Your task to perform on an android device: change the upload size in google photos Image 0: 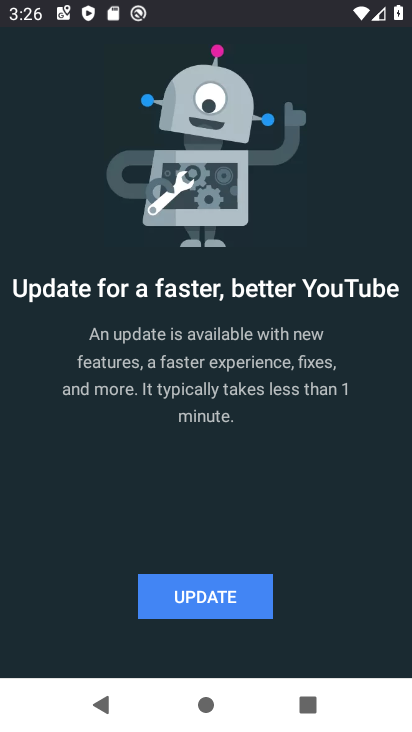
Step 0: press home button
Your task to perform on an android device: change the upload size in google photos Image 1: 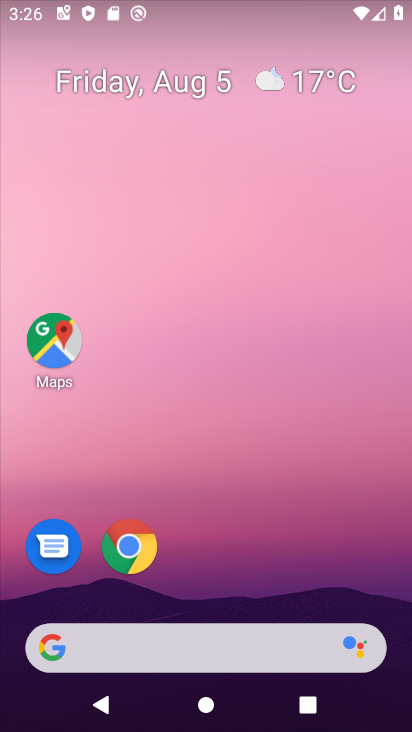
Step 1: drag from (263, 526) to (261, 89)
Your task to perform on an android device: change the upload size in google photos Image 2: 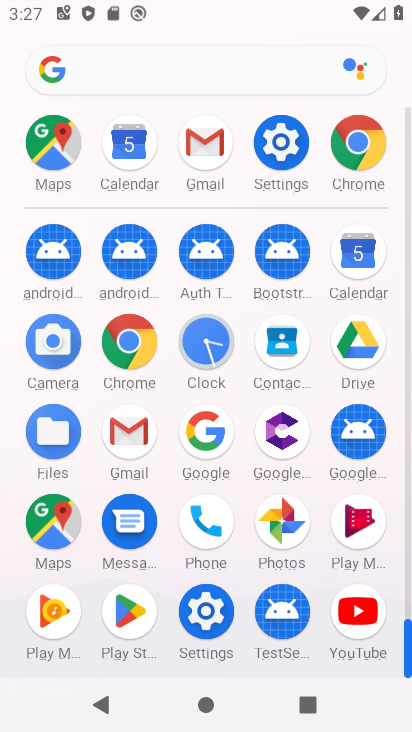
Step 2: click (288, 526)
Your task to perform on an android device: change the upload size in google photos Image 3: 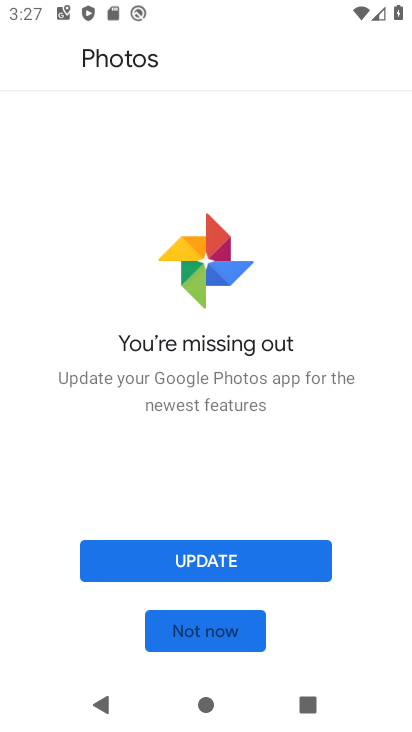
Step 3: click (201, 637)
Your task to perform on an android device: change the upload size in google photos Image 4: 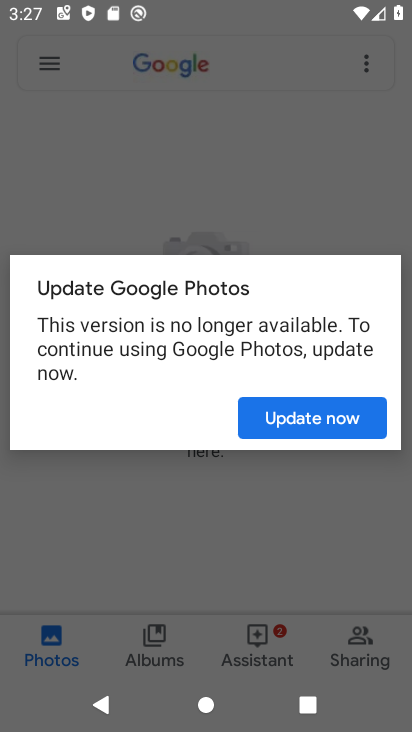
Step 4: click (310, 428)
Your task to perform on an android device: change the upload size in google photos Image 5: 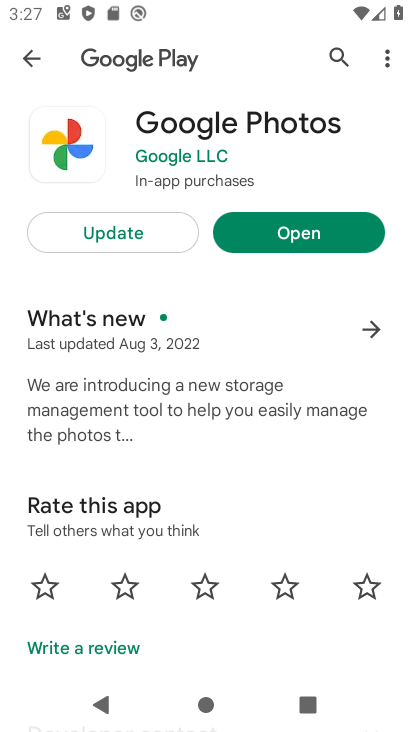
Step 5: click (139, 228)
Your task to perform on an android device: change the upload size in google photos Image 6: 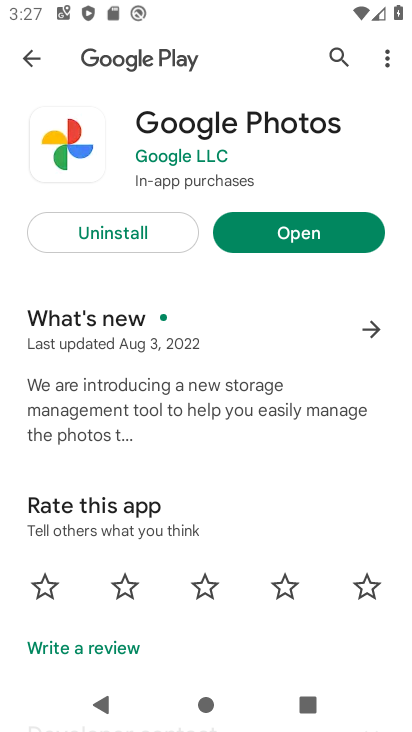
Step 6: click (324, 236)
Your task to perform on an android device: change the upload size in google photos Image 7: 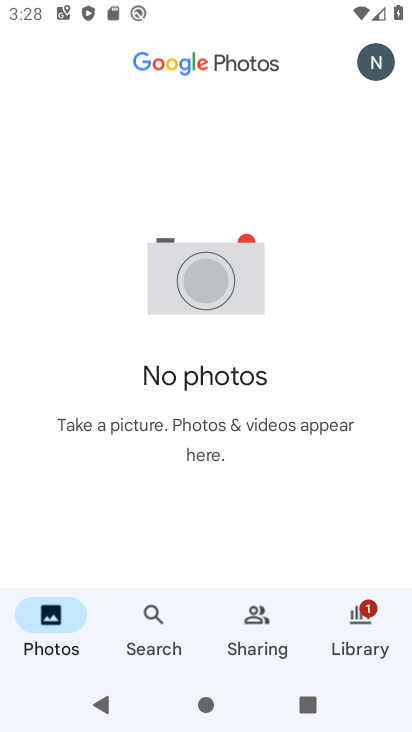
Step 7: click (377, 60)
Your task to perform on an android device: change the upload size in google photos Image 8: 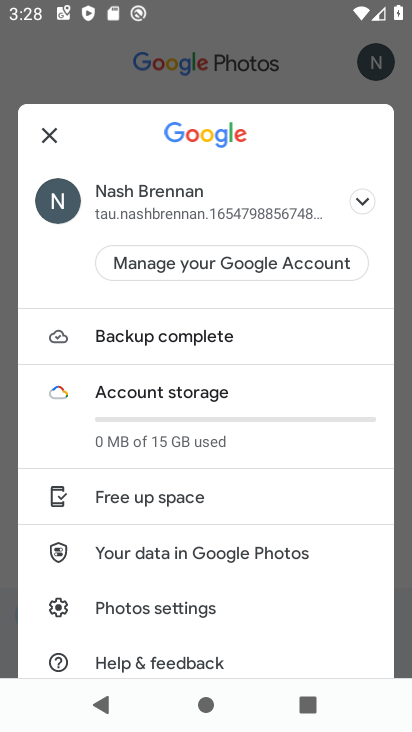
Step 8: click (226, 609)
Your task to perform on an android device: change the upload size in google photos Image 9: 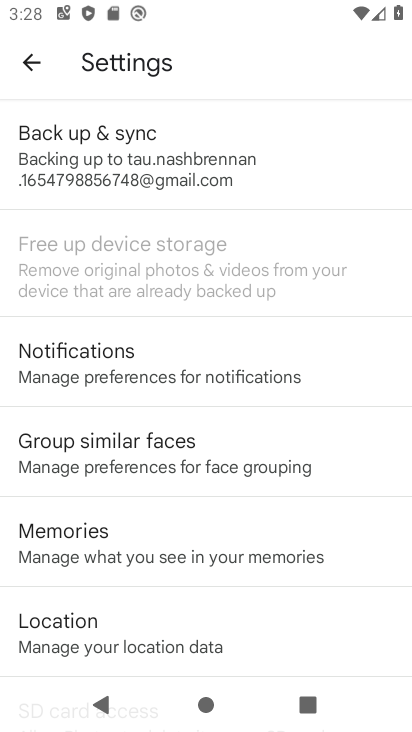
Step 9: click (162, 162)
Your task to perform on an android device: change the upload size in google photos Image 10: 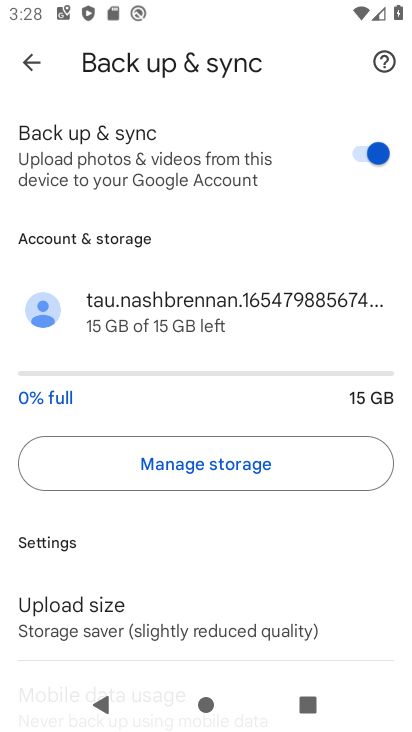
Step 10: click (121, 624)
Your task to perform on an android device: change the upload size in google photos Image 11: 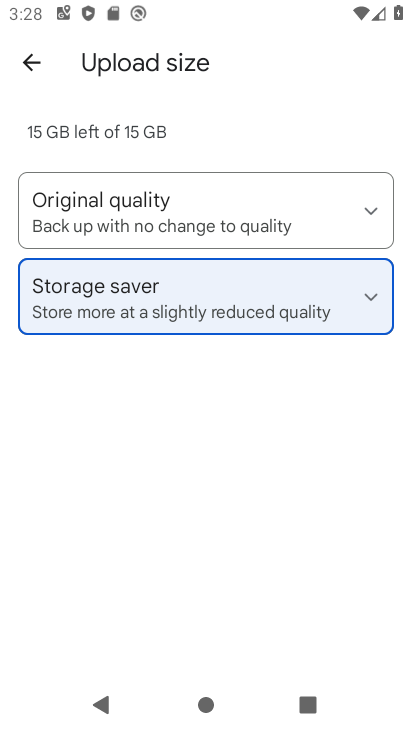
Step 11: click (187, 208)
Your task to perform on an android device: change the upload size in google photos Image 12: 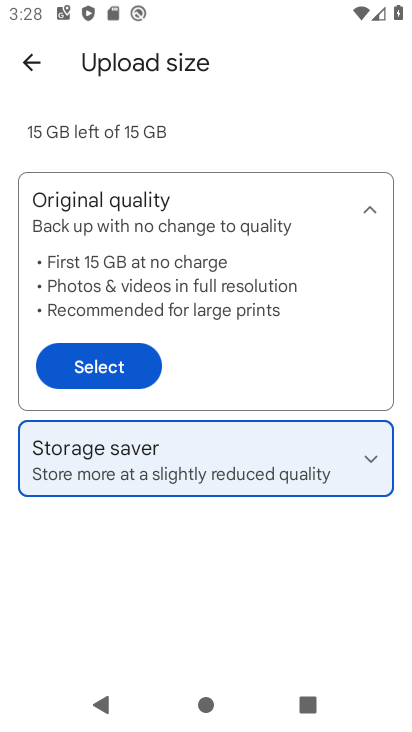
Step 12: click (100, 375)
Your task to perform on an android device: change the upload size in google photos Image 13: 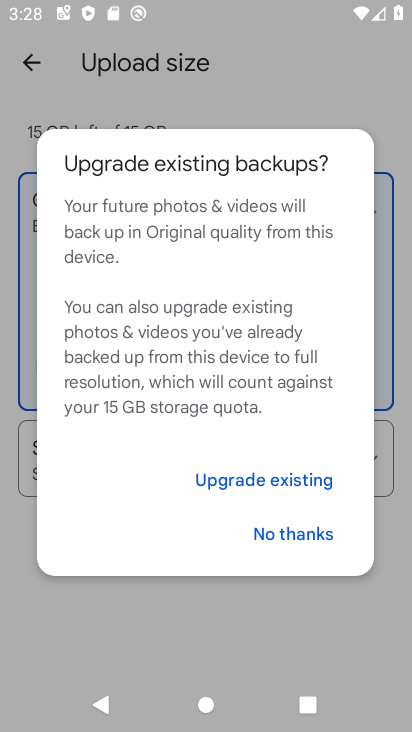
Step 13: click (277, 480)
Your task to perform on an android device: change the upload size in google photos Image 14: 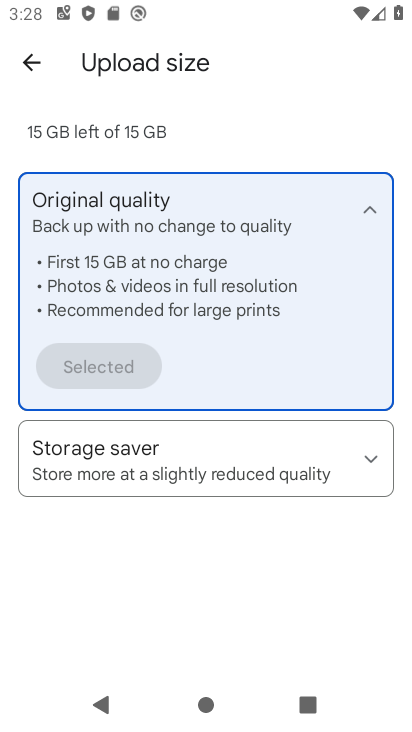
Step 14: task complete